Your task to perform on an android device: Open network settings Image 0: 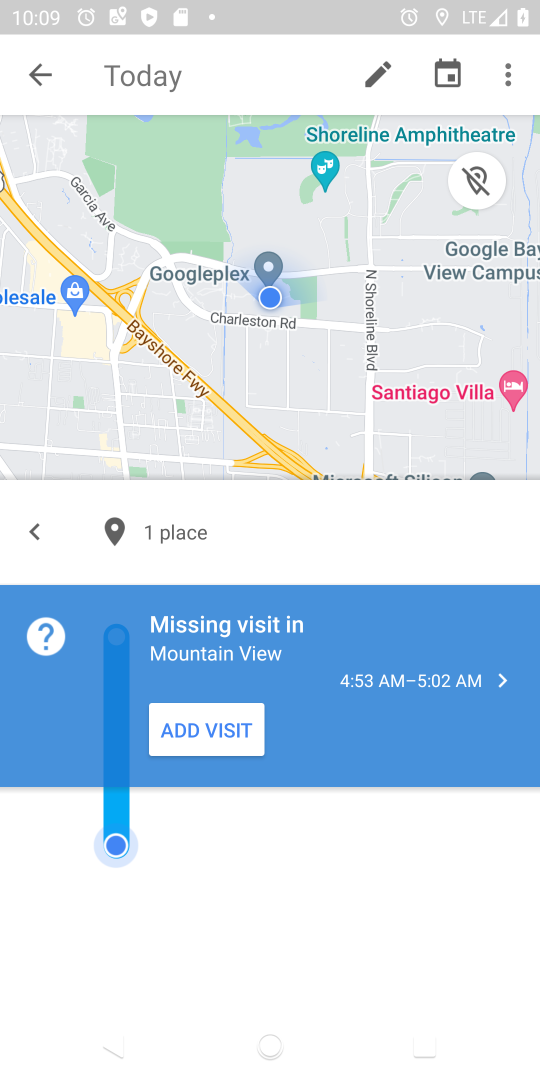
Step 0: press home button
Your task to perform on an android device: Open network settings Image 1: 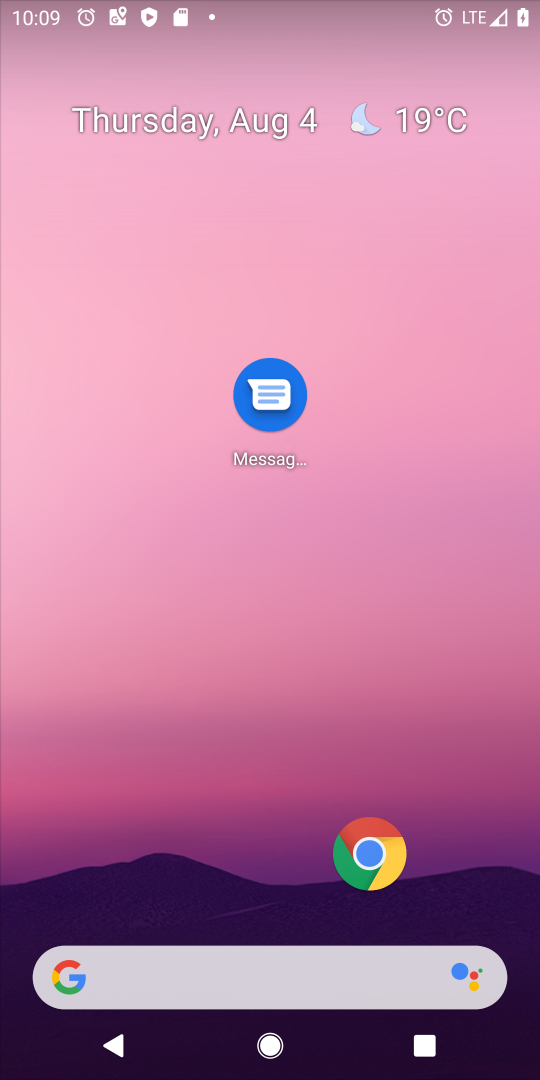
Step 1: drag from (275, 957) to (231, 201)
Your task to perform on an android device: Open network settings Image 2: 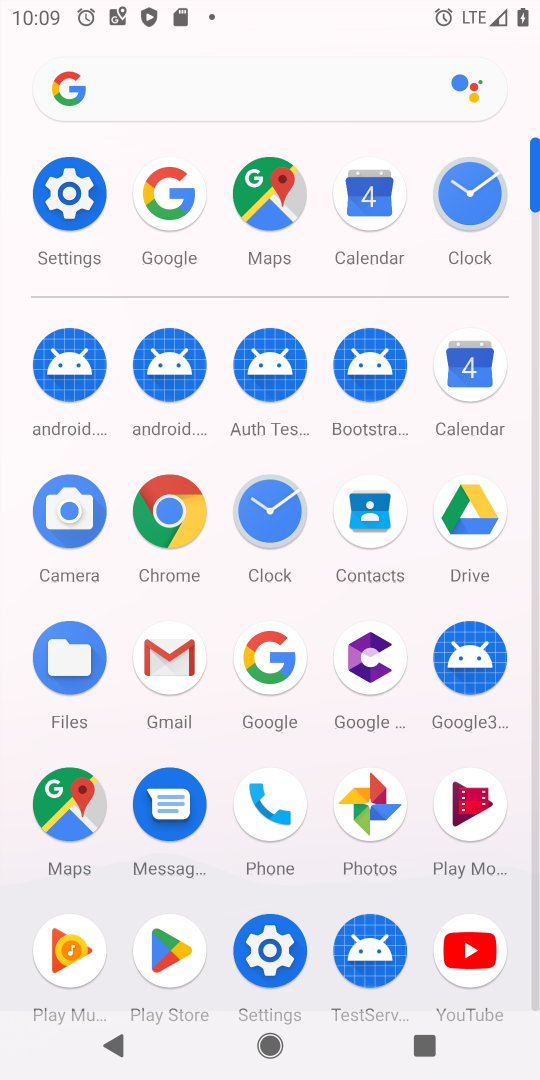
Step 2: click (55, 204)
Your task to perform on an android device: Open network settings Image 3: 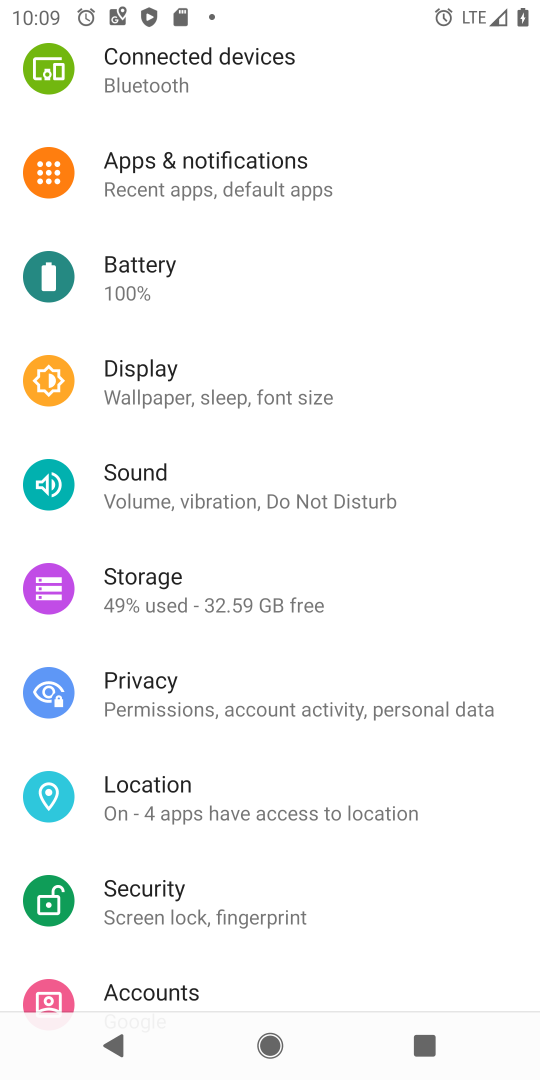
Step 3: drag from (236, 87) to (309, 608)
Your task to perform on an android device: Open network settings Image 4: 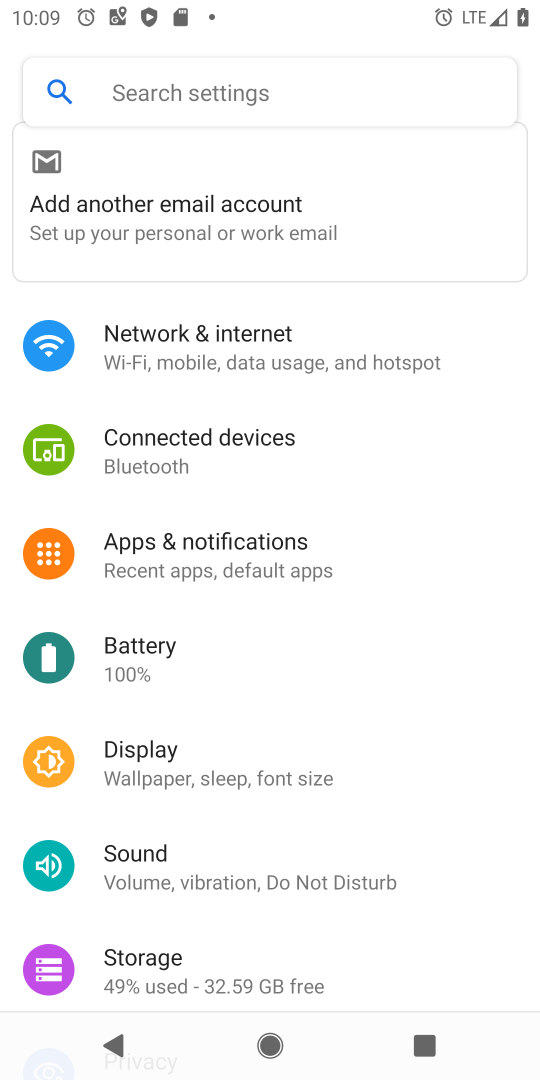
Step 4: click (165, 337)
Your task to perform on an android device: Open network settings Image 5: 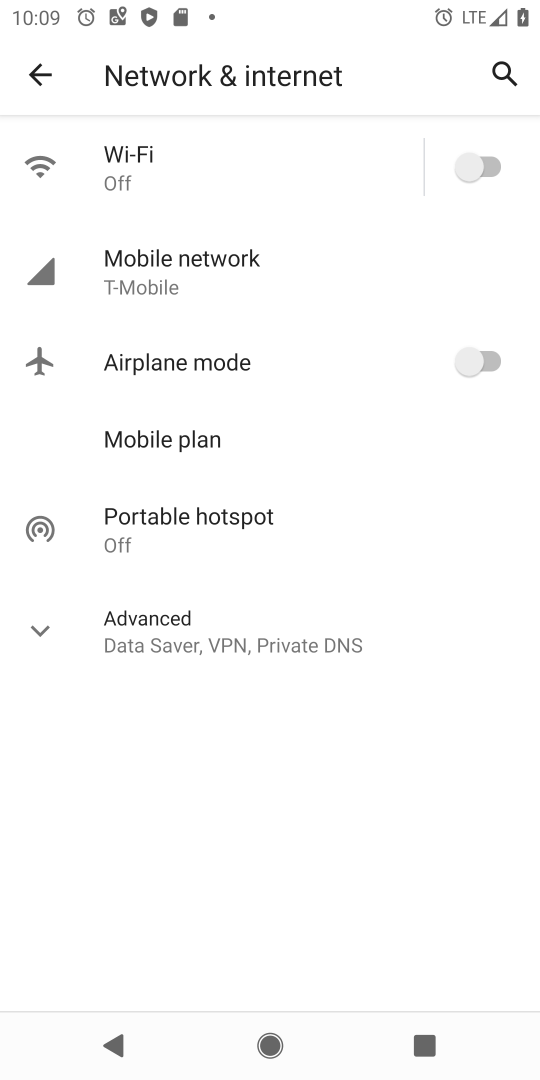
Step 5: click (177, 263)
Your task to perform on an android device: Open network settings Image 6: 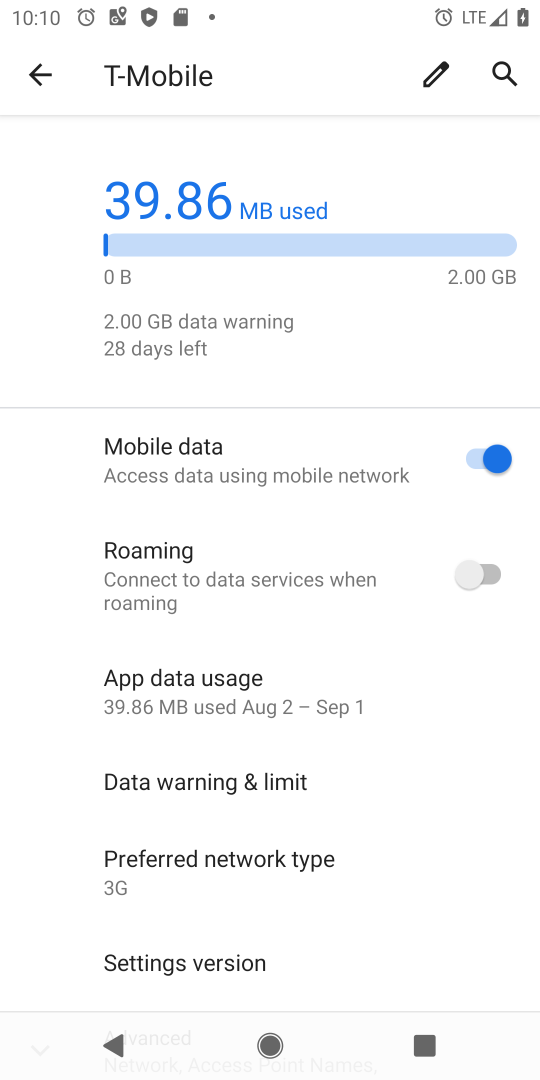
Step 6: task complete